Your task to perform on an android device: Go to notification settings Image 0: 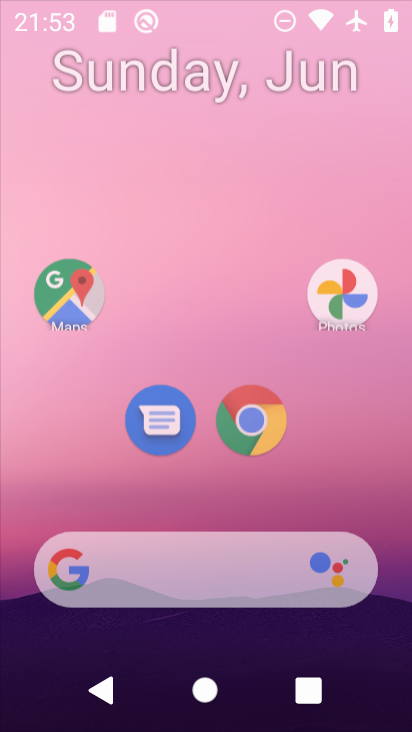
Step 0: press home button
Your task to perform on an android device: Go to notification settings Image 1: 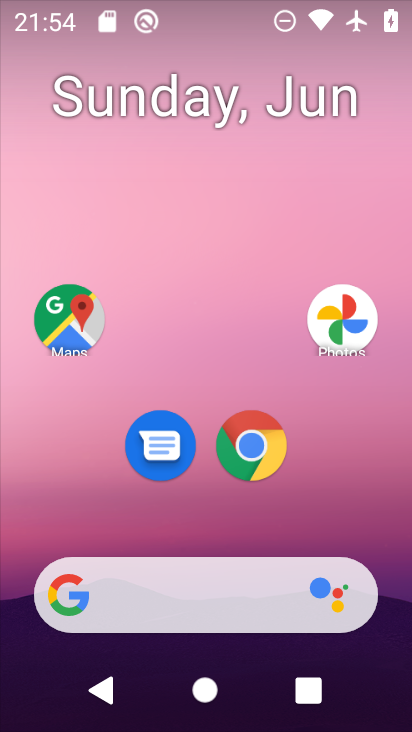
Step 1: drag from (217, 537) to (258, 43)
Your task to perform on an android device: Go to notification settings Image 2: 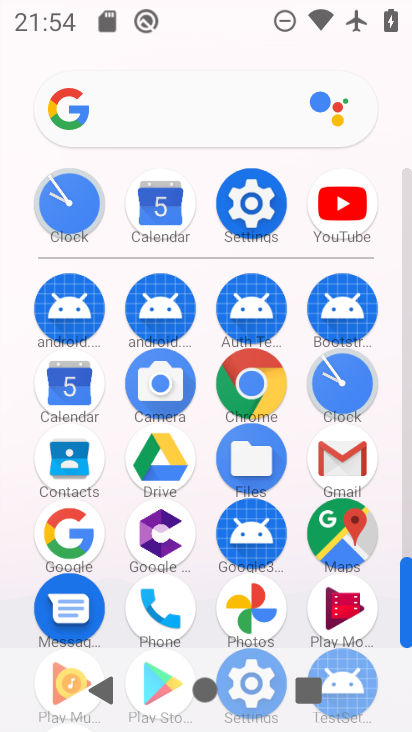
Step 2: click (256, 203)
Your task to perform on an android device: Go to notification settings Image 3: 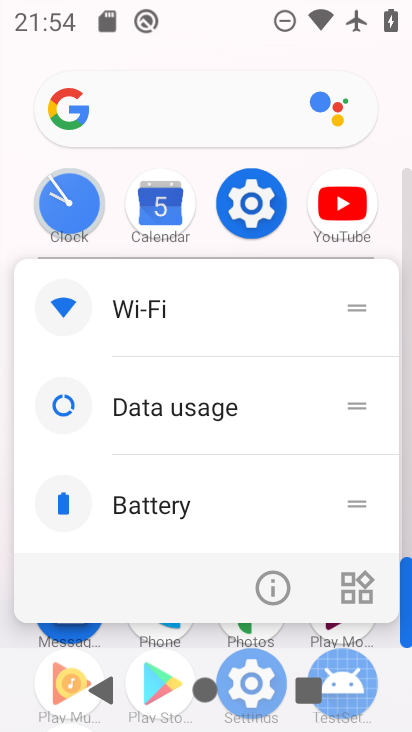
Step 3: click (248, 211)
Your task to perform on an android device: Go to notification settings Image 4: 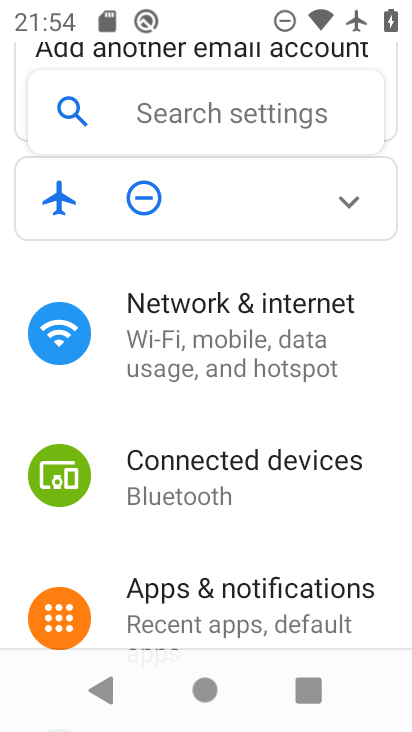
Step 4: click (265, 604)
Your task to perform on an android device: Go to notification settings Image 5: 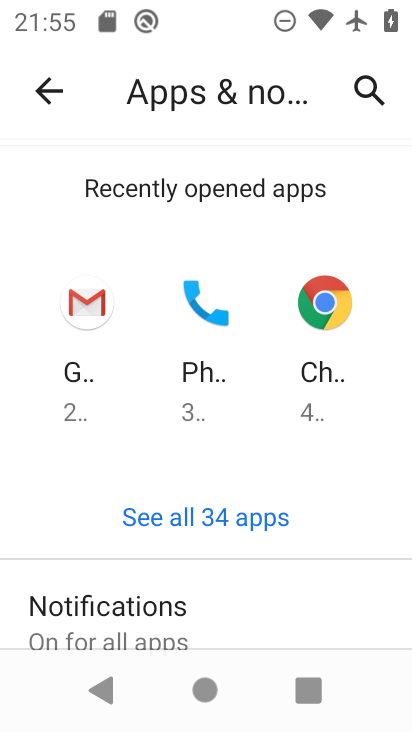
Step 5: drag from (254, 600) to (263, 273)
Your task to perform on an android device: Go to notification settings Image 6: 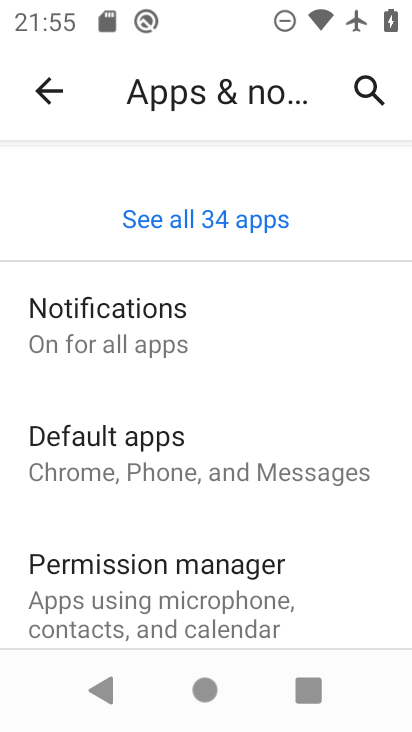
Step 6: click (106, 312)
Your task to perform on an android device: Go to notification settings Image 7: 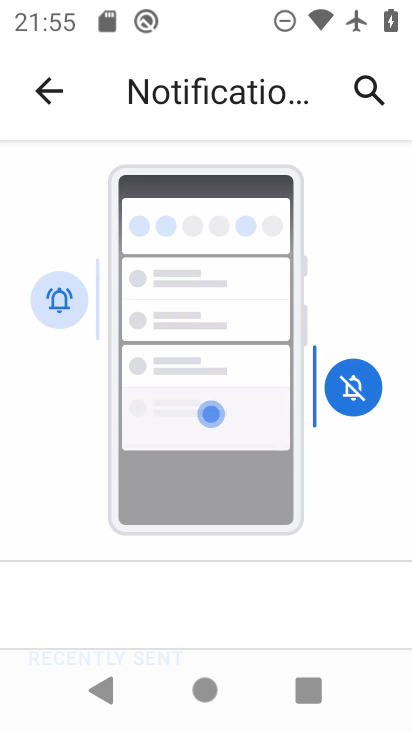
Step 7: task complete